Your task to perform on an android device: Go to wifi settings Image 0: 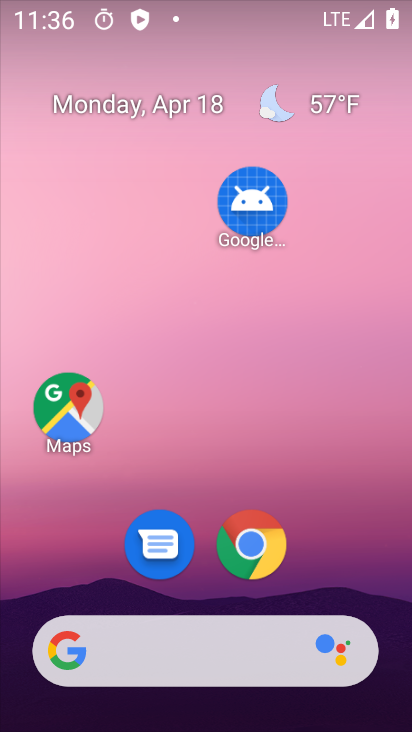
Step 0: drag from (274, 133) to (276, 98)
Your task to perform on an android device: Go to wifi settings Image 1: 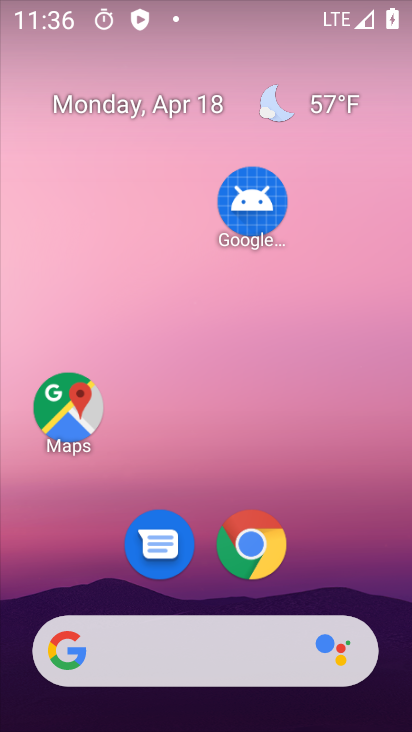
Step 1: drag from (245, 407) to (245, 224)
Your task to perform on an android device: Go to wifi settings Image 2: 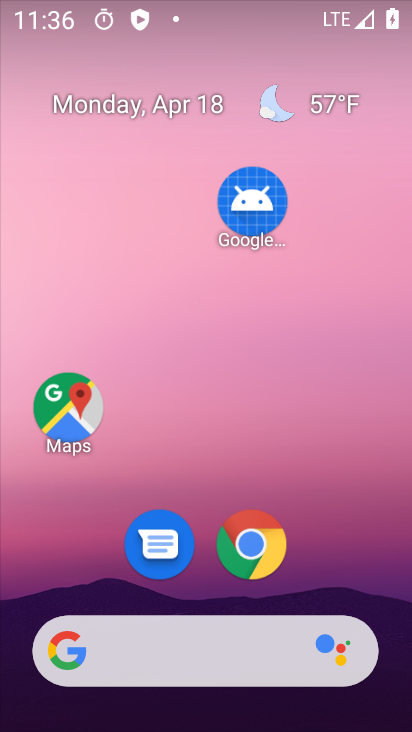
Step 2: drag from (288, 639) to (307, 116)
Your task to perform on an android device: Go to wifi settings Image 3: 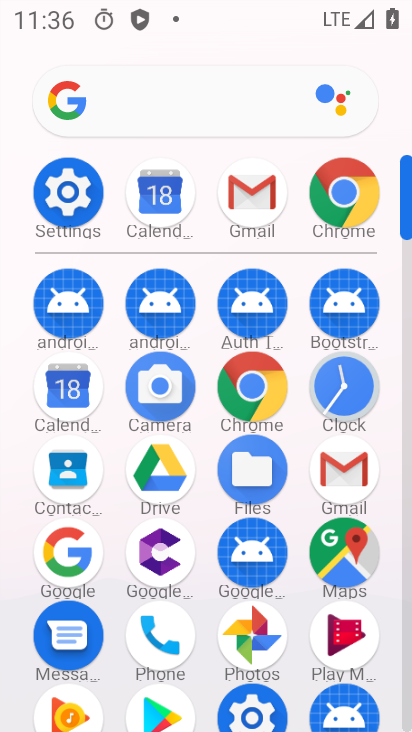
Step 3: click (63, 174)
Your task to perform on an android device: Go to wifi settings Image 4: 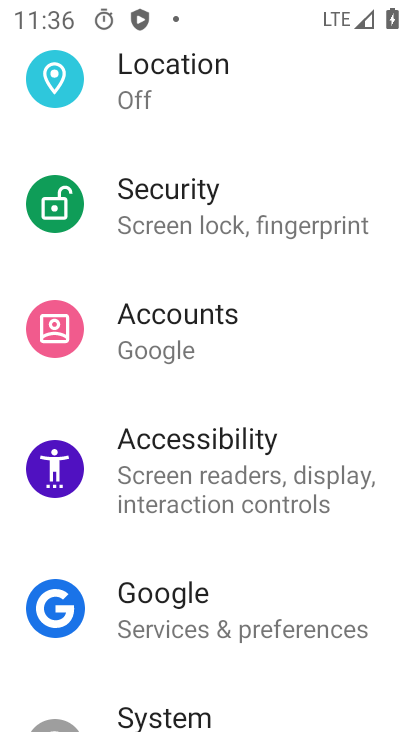
Step 4: drag from (218, 112) to (226, 561)
Your task to perform on an android device: Go to wifi settings Image 5: 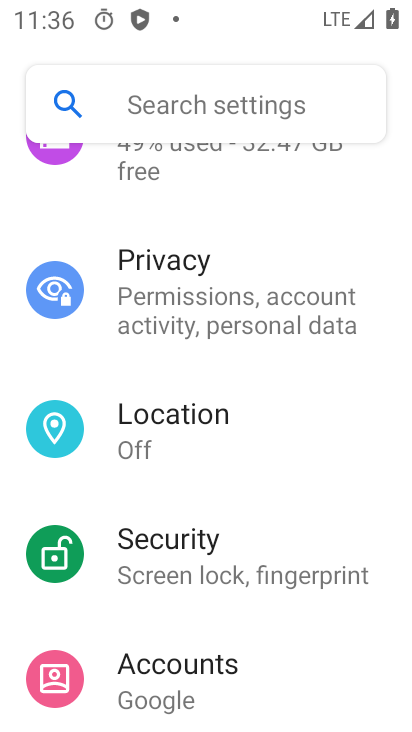
Step 5: drag from (255, 195) to (258, 665)
Your task to perform on an android device: Go to wifi settings Image 6: 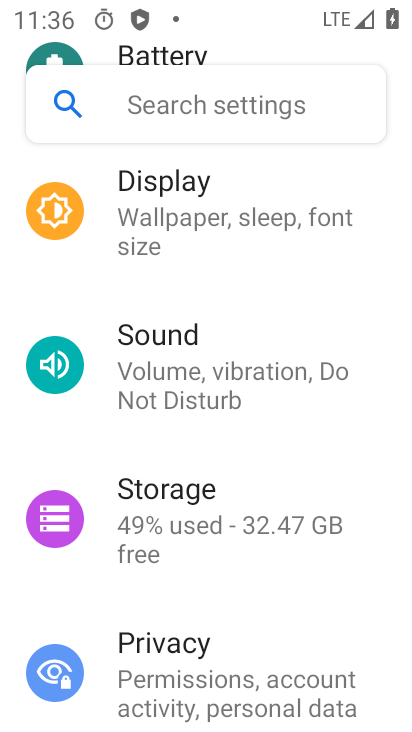
Step 6: drag from (268, 210) to (300, 565)
Your task to perform on an android device: Go to wifi settings Image 7: 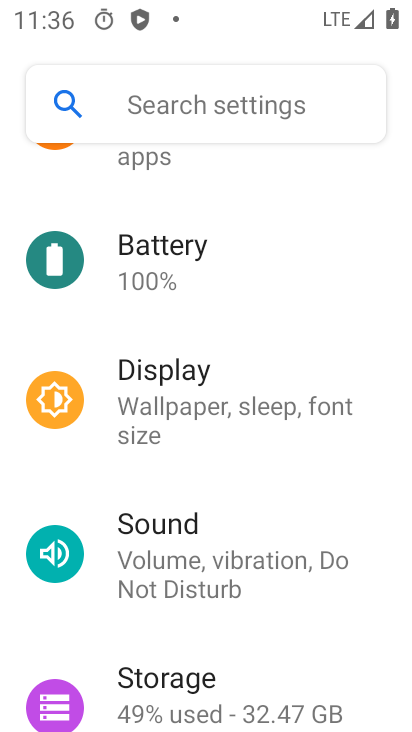
Step 7: drag from (302, 249) to (307, 631)
Your task to perform on an android device: Go to wifi settings Image 8: 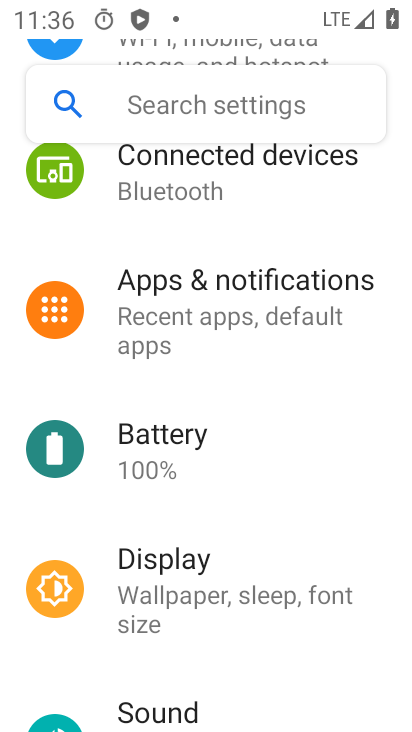
Step 8: drag from (301, 185) to (298, 570)
Your task to perform on an android device: Go to wifi settings Image 9: 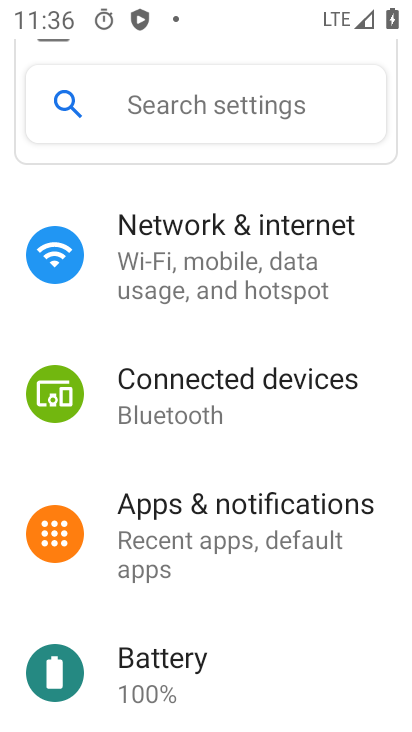
Step 9: click (287, 242)
Your task to perform on an android device: Go to wifi settings Image 10: 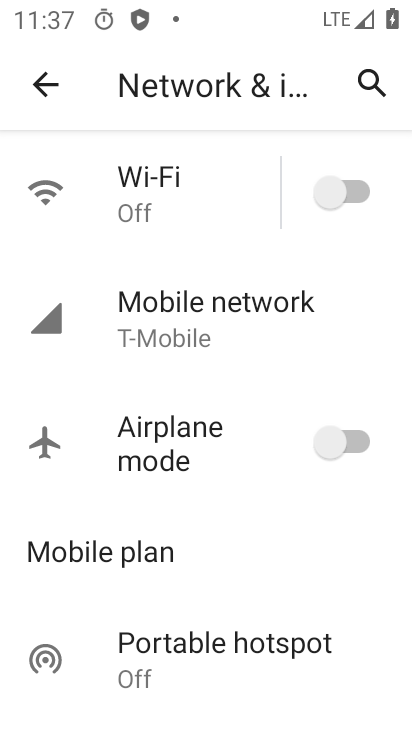
Step 10: click (214, 180)
Your task to perform on an android device: Go to wifi settings Image 11: 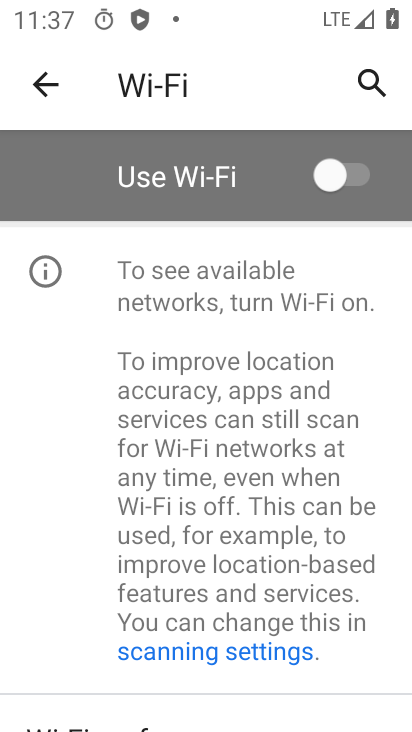
Step 11: task complete